Your task to perform on an android device: change notification settings in the gmail app Image 0: 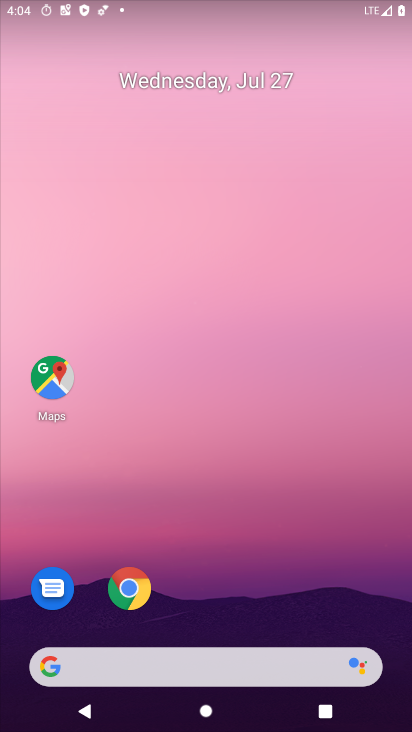
Step 0: press home button
Your task to perform on an android device: change notification settings in the gmail app Image 1: 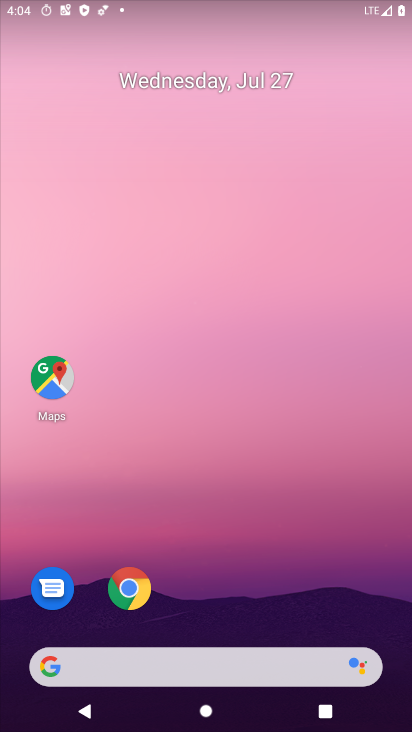
Step 1: drag from (257, 625) to (172, 315)
Your task to perform on an android device: change notification settings in the gmail app Image 2: 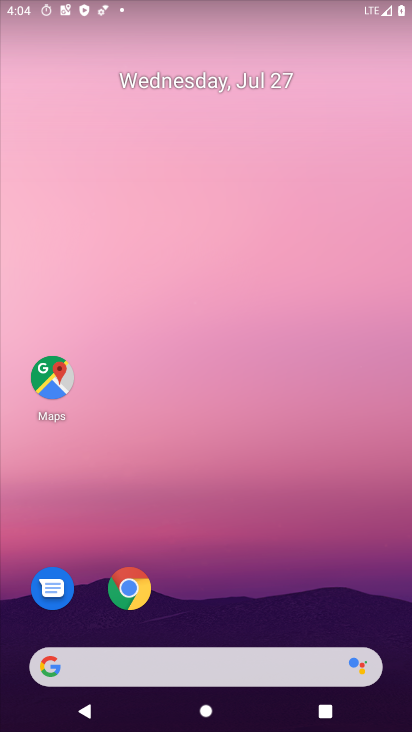
Step 2: drag from (290, 629) to (278, 542)
Your task to perform on an android device: change notification settings in the gmail app Image 3: 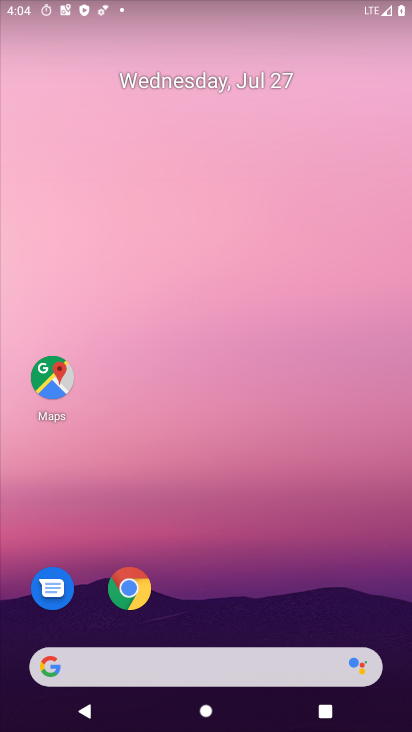
Step 3: drag from (288, 614) to (213, 229)
Your task to perform on an android device: change notification settings in the gmail app Image 4: 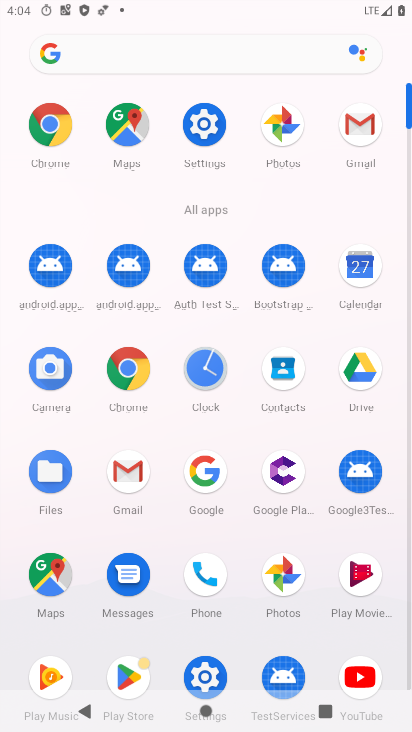
Step 4: click (359, 123)
Your task to perform on an android device: change notification settings in the gmail app Image 5: 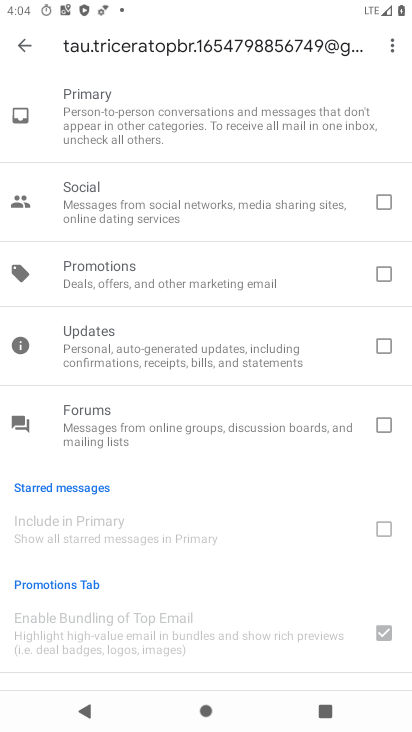
Step 5: click (24, 45)
Your task to perform on an android device: change notification settings in the gmail app Image 6: 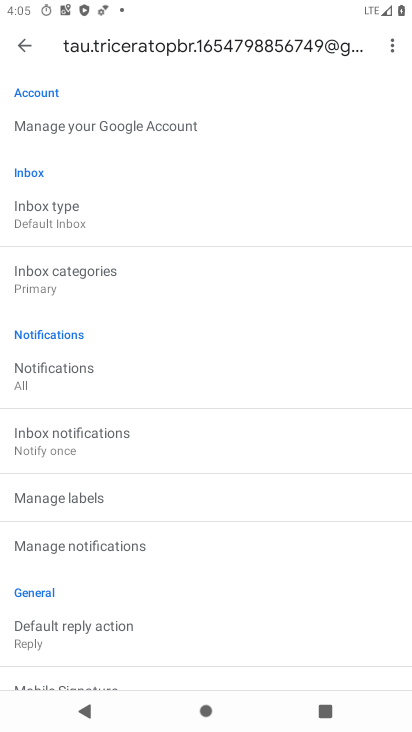
Step 6: click (69, 547)
Your task to perform on an android device: change notification settings in the gmail app Image 7: 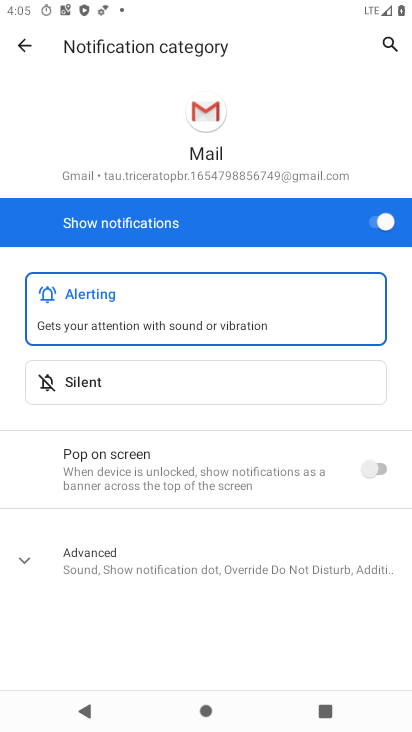
Step 7: click (382, 217)
Your task to perform on an android device: change notification settings in the gmail app Image 8: 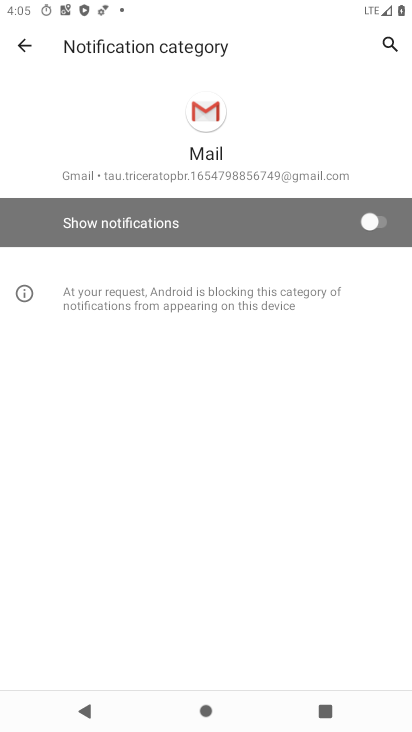
Step 8: task complete